Your task to perform on an android device: Do I have any events today? Image 0: 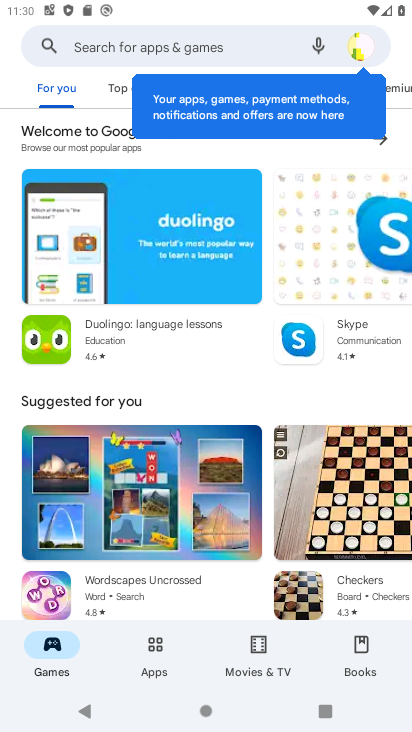
Step 0: press home button
Your task to perform on an android device: Do I have any events today? Image 1: 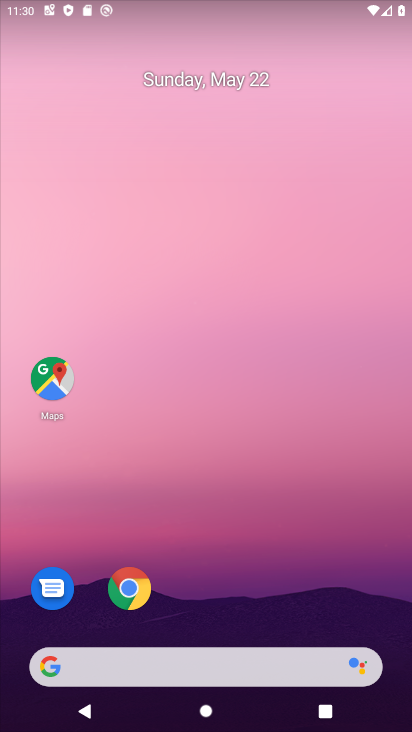
Step 1: drag from (249, 693) to (221, 370)
Your task to perform on an android device: Do I have any events today? Image 2: 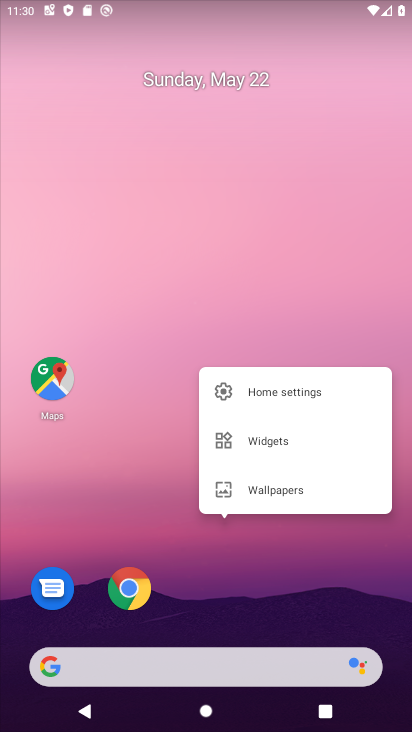
Step 2: click (159, 336)
Your task to perform on an android device: Do I have any events today? Image 3: 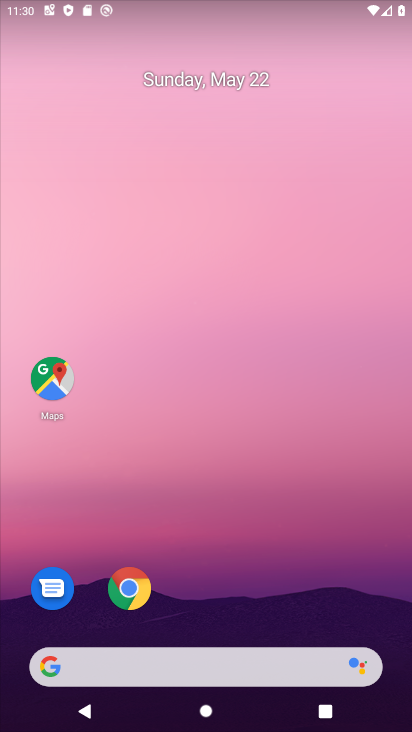
Step 3: drag from (274, 683) to (348, 250)
Your task to perform on an android device: Do I have any events today? Image 4: 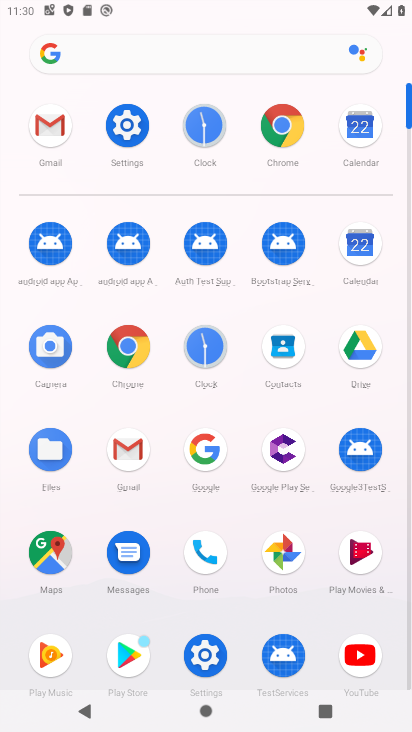
Step 4: click (341, 254)
Your task to perform on an android device: Do I have any events today? Image 5: 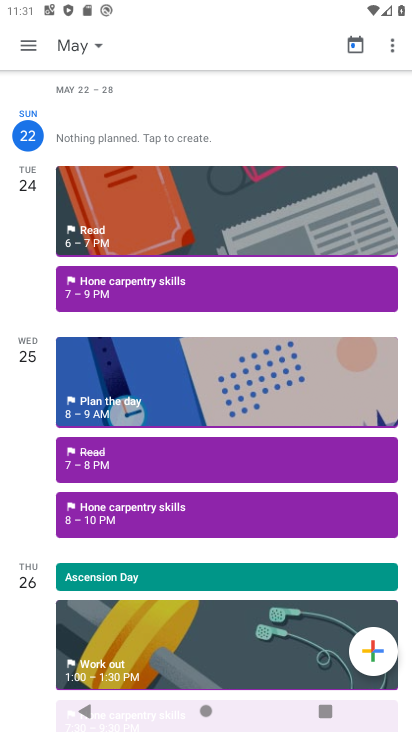
Step 5: task complete